Your task to perform on an android device: What's the news in Barbados? Image 0: 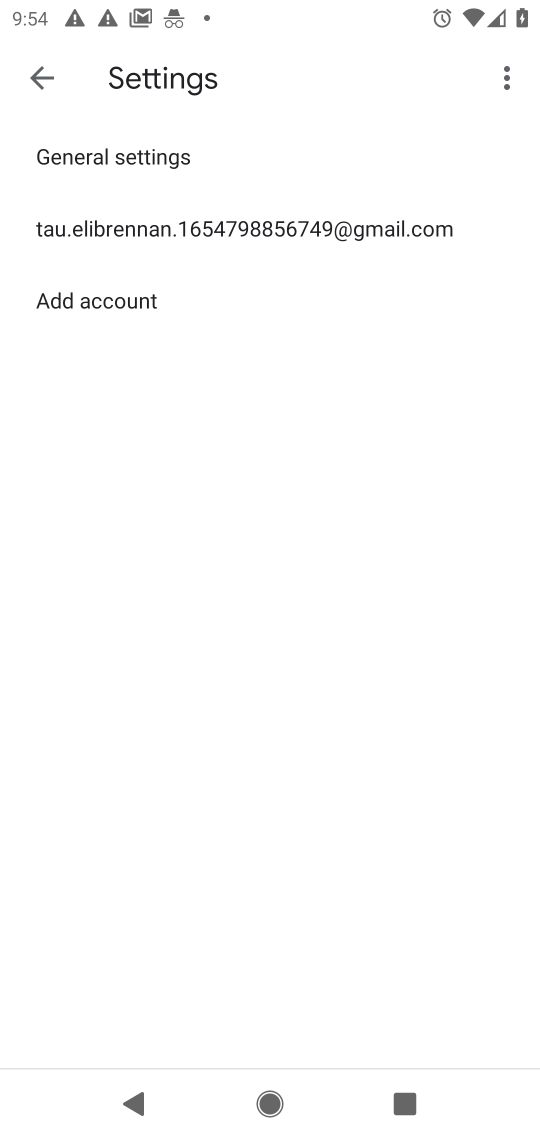
Step 0: press home button
Your task to perform on an android device: What's the news in Barbados? Image 1: 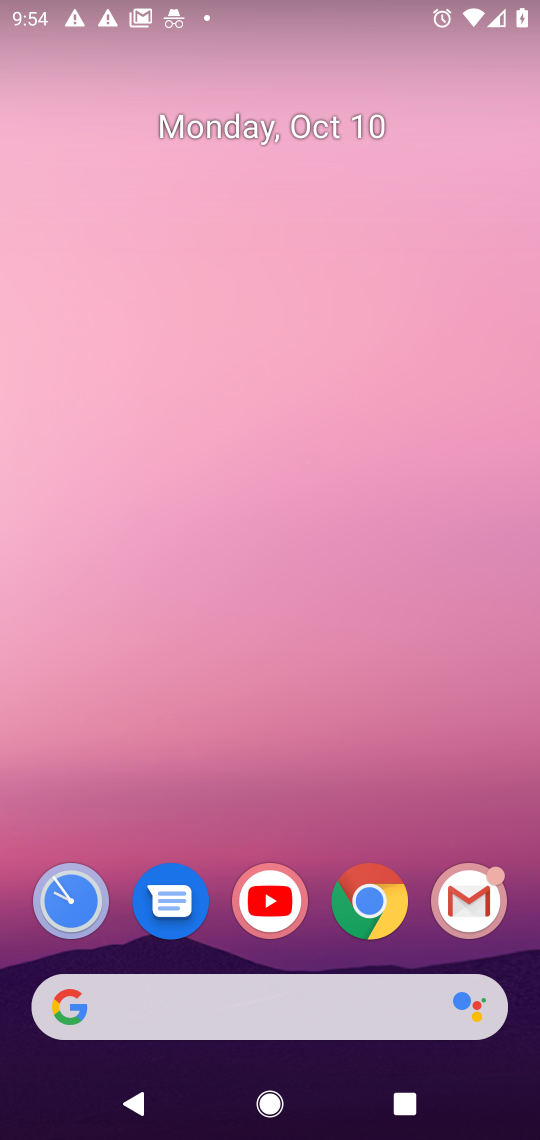
Step 1: click (245, 1019)
Your task to perform on an android device: What's the news in Barbados? Image 2: 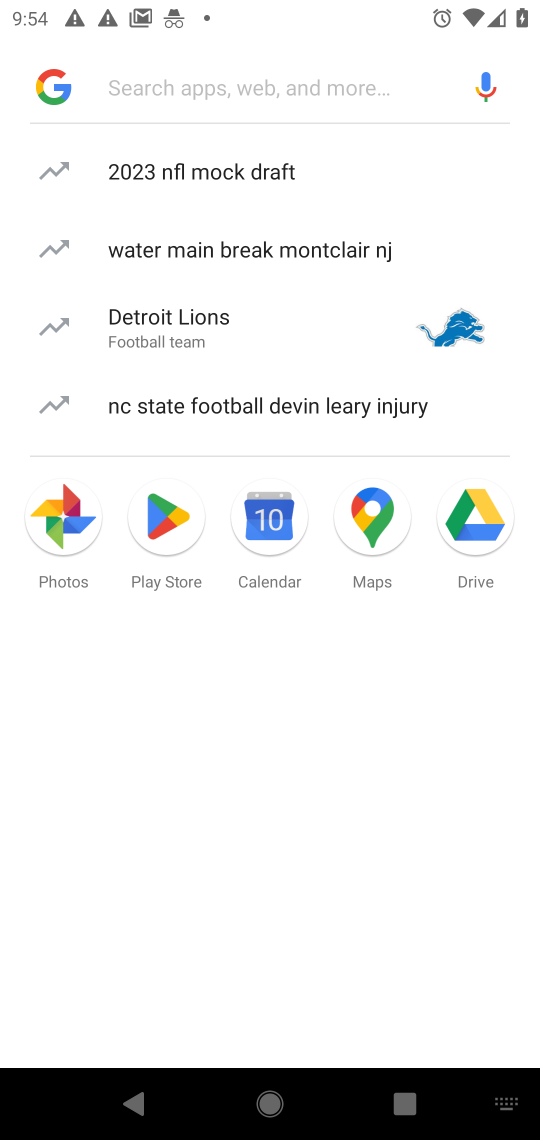
Step 2: type "What's the news in Barbados"
Your task to perform on an android device: What's the news in Barbados? Image 3: 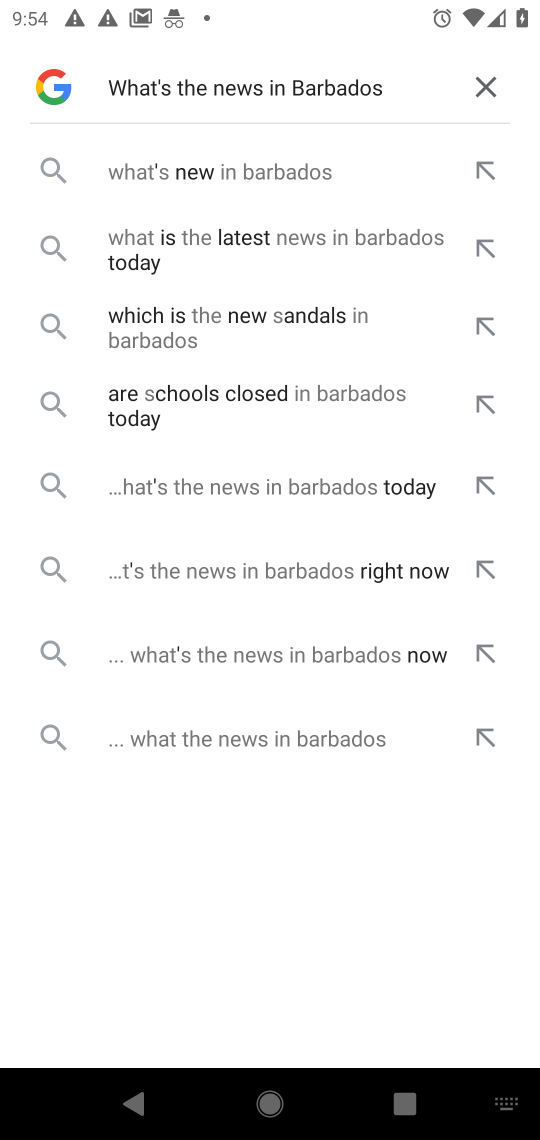
Step 3: press enter
Your task to perform on an android device: What's the news in Barbados? Image 4: 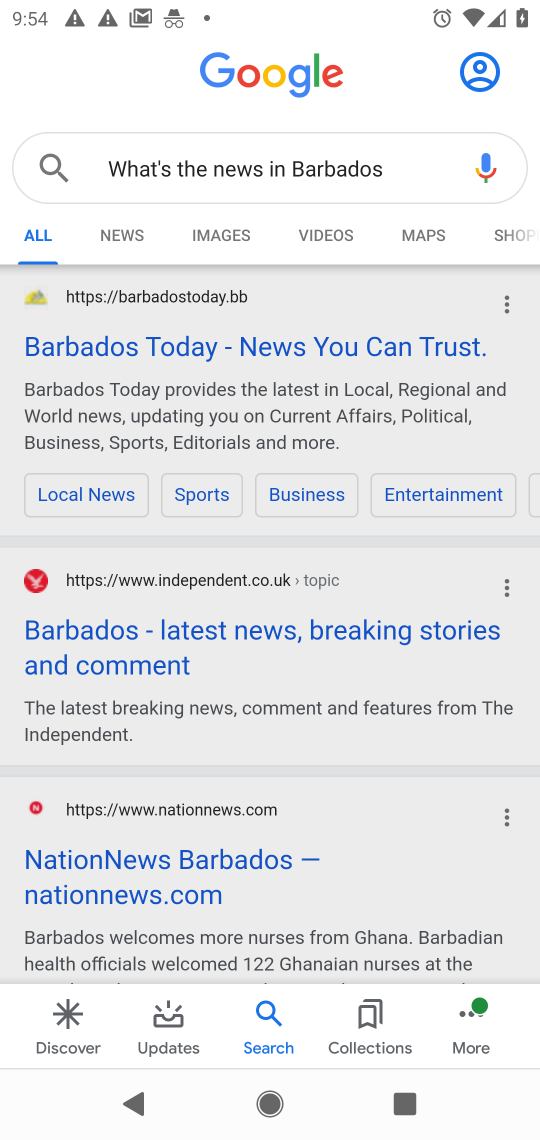
Step 4: click (257, 631)
Your task to perform on an android device: What's the news in Barbados? Image 5: 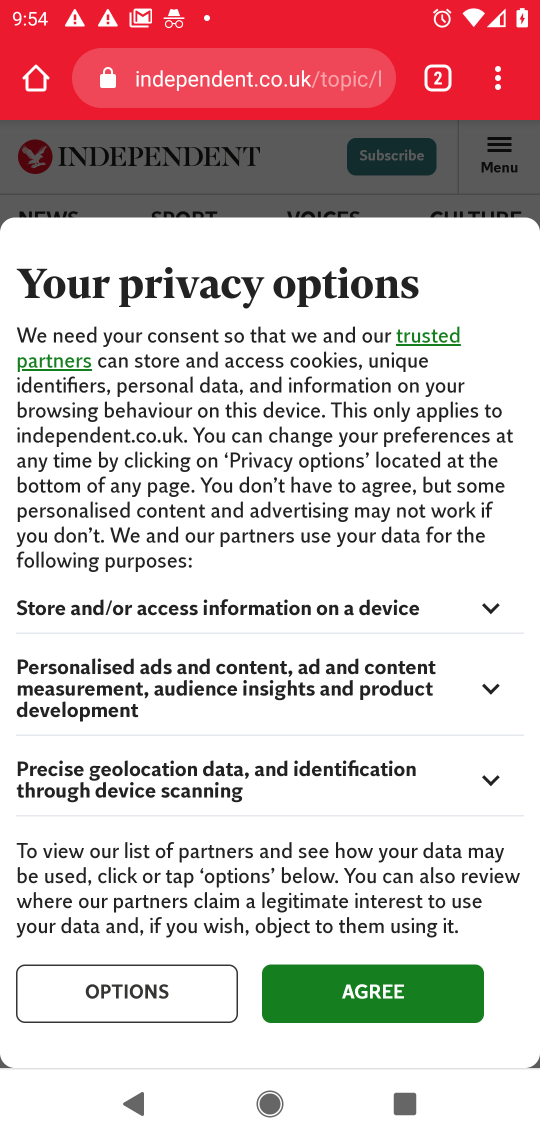
Step 5: click (383, 990)
Your task to perform on an android device: What's the news in Barbados? Image 6: 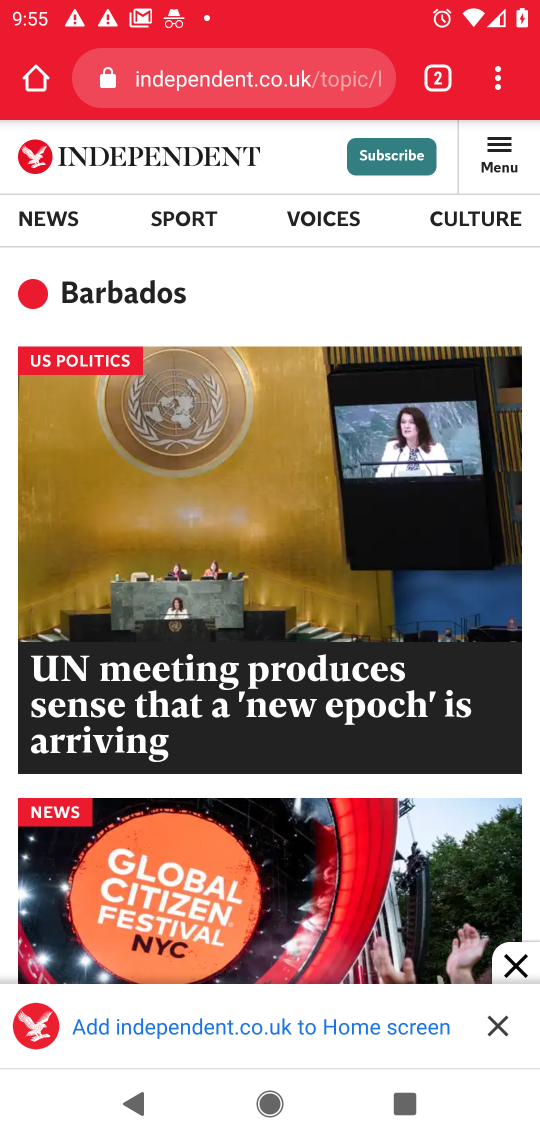
Step 6: task complete